Your task to perform on an android device: Add sony triple a to the cart on walmart, then select checkout. Image 0: 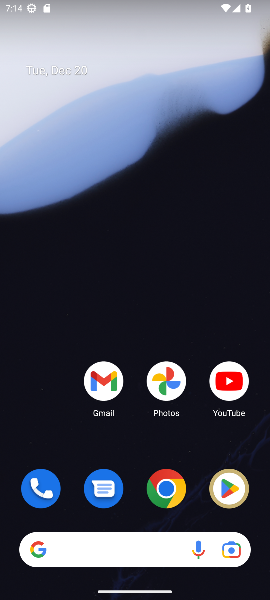
Step 0: press home button
Your task to perform on an android device: Add sony triple a to the cart on walmart, then select checkout. Image 1: 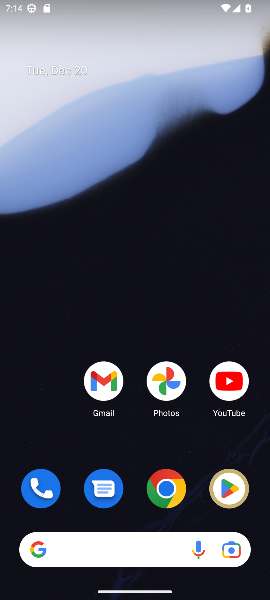
Step 1: drag from (55, 434) to (42, 43)
Your task to perform on an android device: Add sony triple a to the cart on walmart, then select checkout. Image 2: 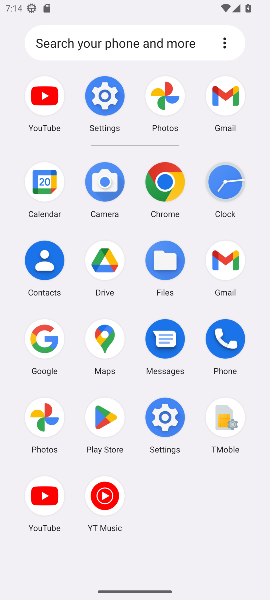
Step 2: click (34, 338)
Your task to perform on an android device: Add sony triple a to the cart on walmart, then select checkout. Image 3: 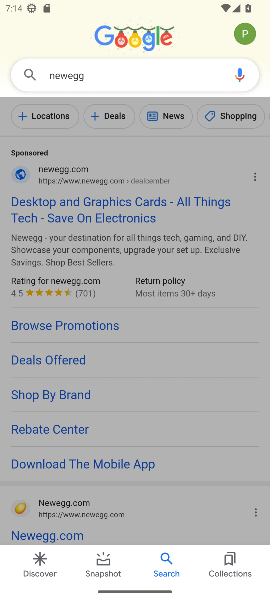
Step 3: click (108, 69)
Your task to perform on an android device: Add sony triple a to the cart on walmart, then select checkout. Image 4: 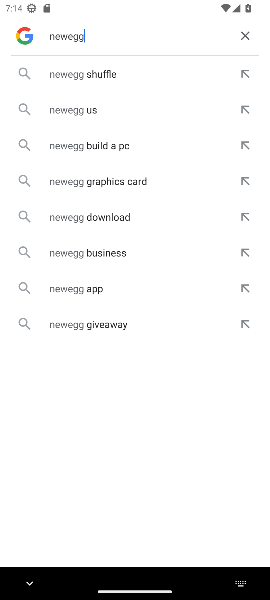
Step 4: click (245, 33)
Your task to perform on an android device: Add sony triple a to the cart on walmart, then select checkout. Image 5: 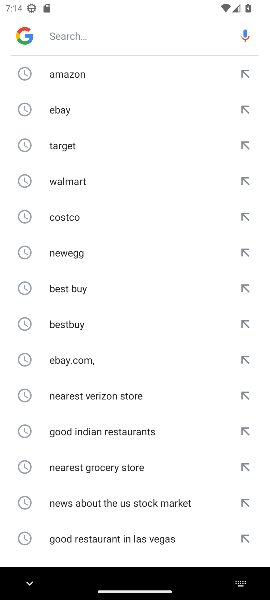
Step 5: type "walmart"
Your task to perform on an android device: Add sony triple a to the cart on walmart, then select checkout. Image 6: 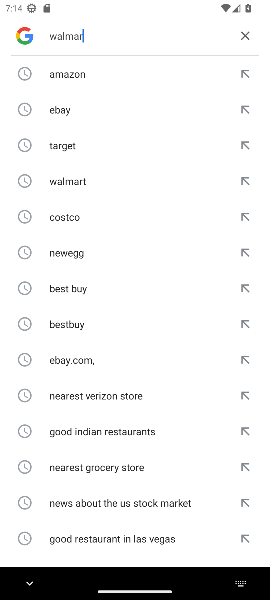
Step 6: press enter
Your task to perform on an android device: Add sony triple a to the cart on walmart, then select checkout. Image 7: 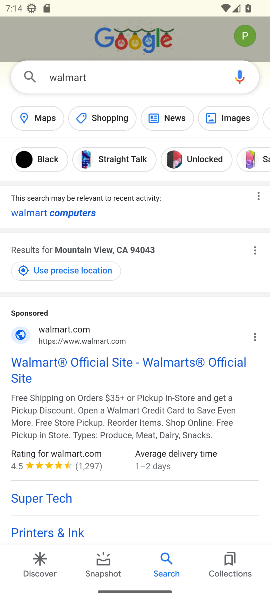
Step 7: click (91, 367)
Your task to perform on an android device: Add sony triple a to the cart on walmart, then select checkout. Image 8: 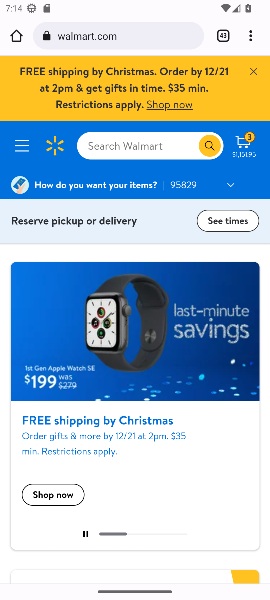
Step 8: click (97, 144)
Your task to perform on an android device: Add sony triple a to the cart on walmart, then select checkout. Image 9: 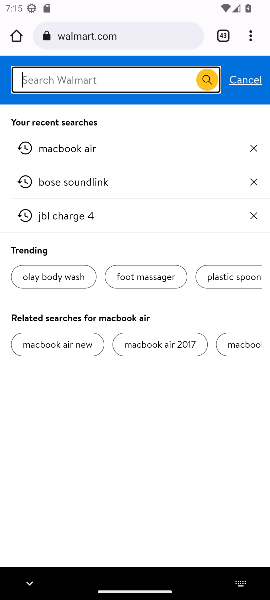
Step 9: type "sony triple a"
Your task to perform on an android device: Add sony triple a to the cart on walmart, then select checkout. Image 10: 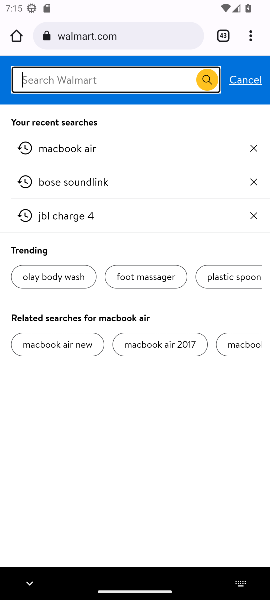
Step 10: press enter
Your task to perform on an android device: Add sony triple a to the cart on walmart, then select checkout. Image 11: 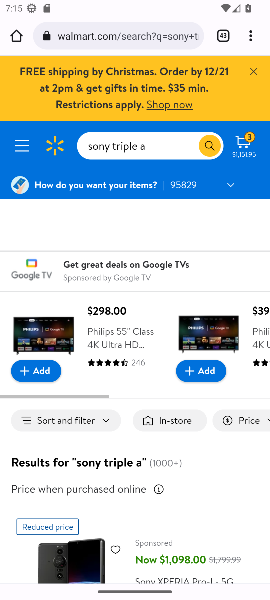
Step 11: drag from (162, 503) to (163, 311)
Your task to perform on an android device: Add sony triple a to the cart on walmart, then select checkout. Image 12: 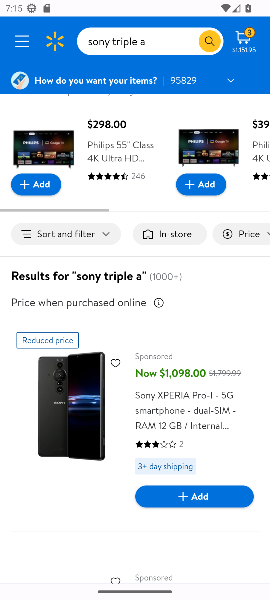
Step 12: drag from (203, 533) to (203, 329)
Your task to perform on an android device: Add sony triple a to the cart on walmart, then select checkout. Image 13: 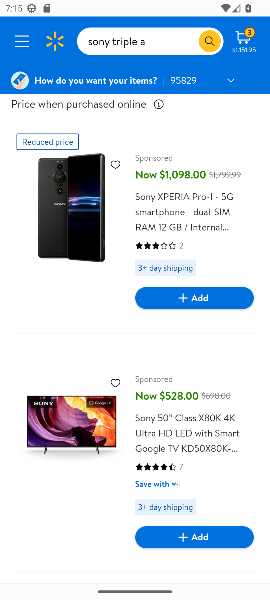
Step 13: click (187, 300)
Your task to perform on an android device: Add sony triple a to the cart on walmart, then select checkout. Image 14: 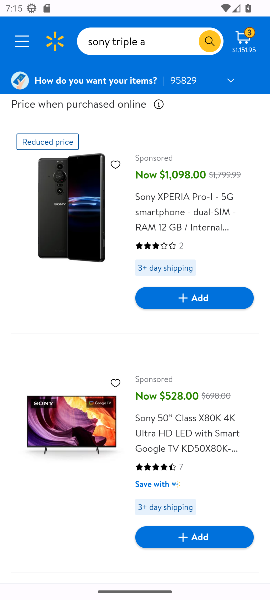
Step 14: click (245, 32)
Your task to perform on an android device: Add sony triple a to the cart on walmart, then select checkout. Image 15: 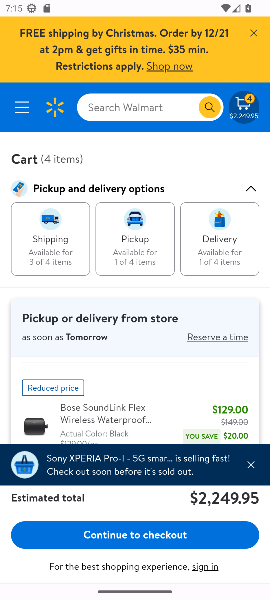
Step 15: click (111, 536)
Your task to perform on an android device: Add sony triple a to the cart on walmart, then select checkout. Image 16: 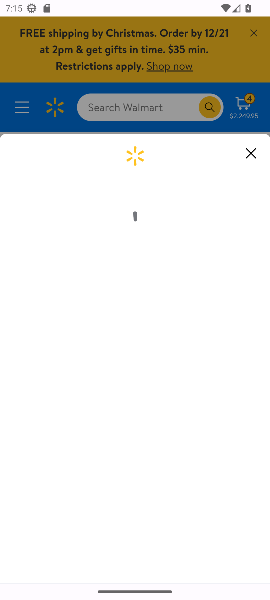
Step 16: task complete